Your task to perform on an android device: turn on showing notifications on the lock screen Image 0: 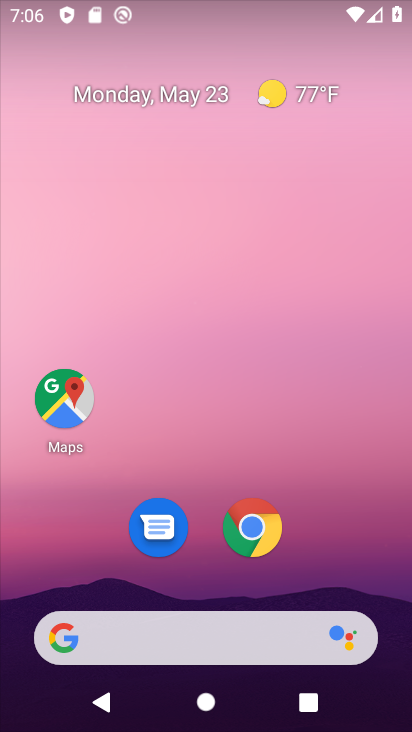
Step 0: drag from (233, 664) to (289, 29)
Your task to perform on an android device: turn on showing notifications on the lock screen Image 1: 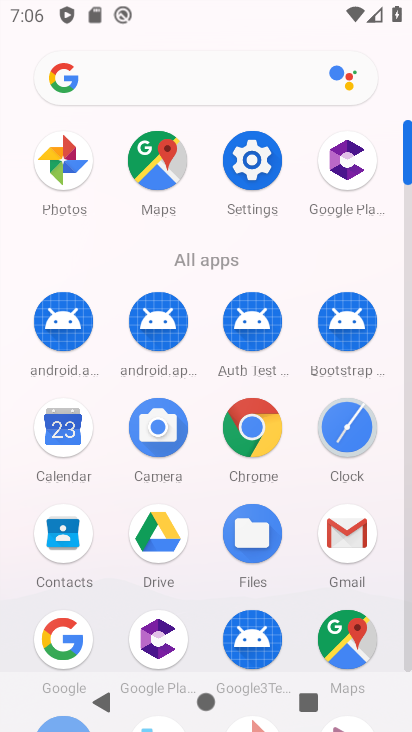
Step 1: click (260, 163)
Your task to perform on an android device: turn on showing notifications on the lock screen Image 2: 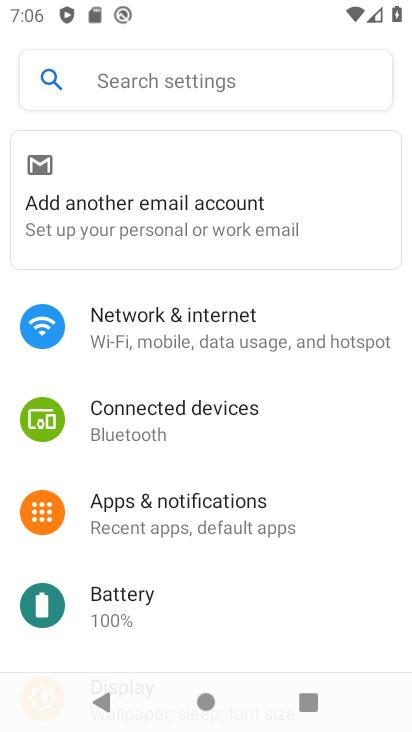
Step 2: click (203, 74)
Your task to perform on an android device: turn on showing notifications on the lock screen Image 3: 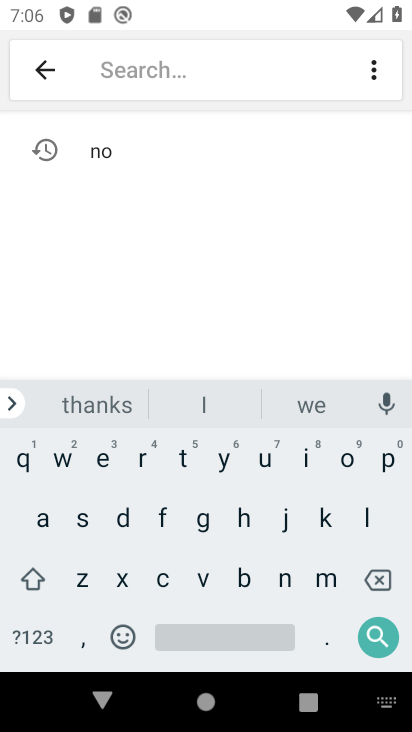
Step 3: click (281, 578)
Your task to perform on an android device: turn on showing notifications on the lock screen Image 4: 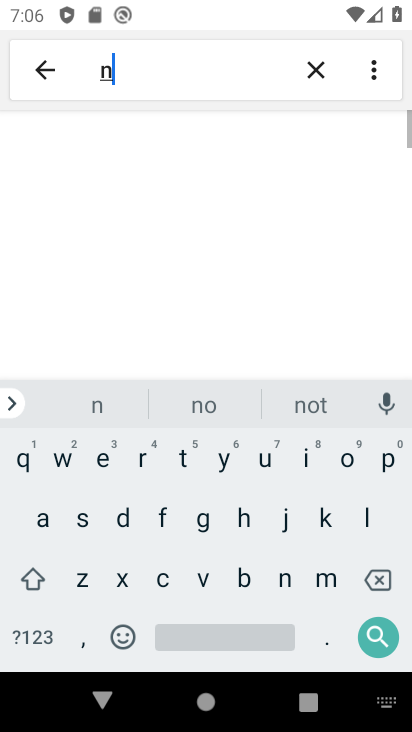
Step 4: click (351, 467)
Your task to perform on an android device: turn on showing notifications on the lock screen Image 5: 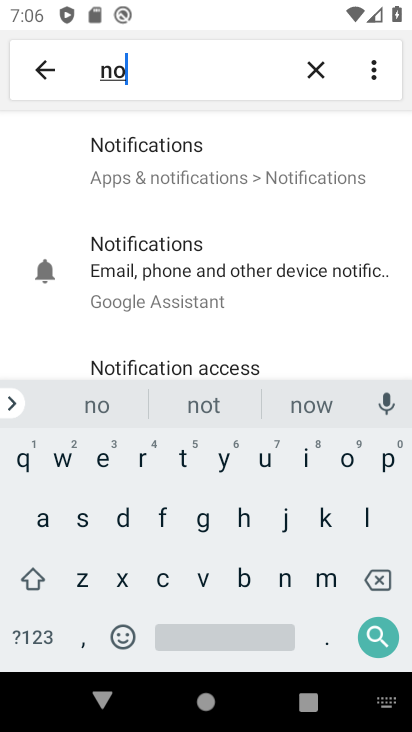
Step 5: click (190, 164)
Your task to perform on an android device: turn on showing notifications on the lock screen Image 6: 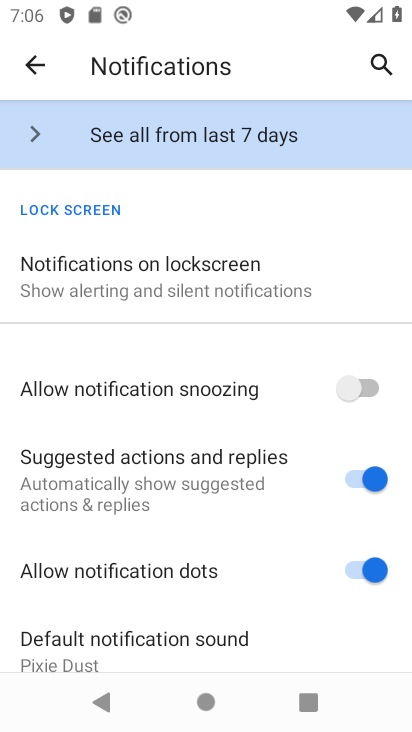
Step 6: click (141, 270)
Your task to perform on an android device: turn on showing notifications on the lock screen Image 7: 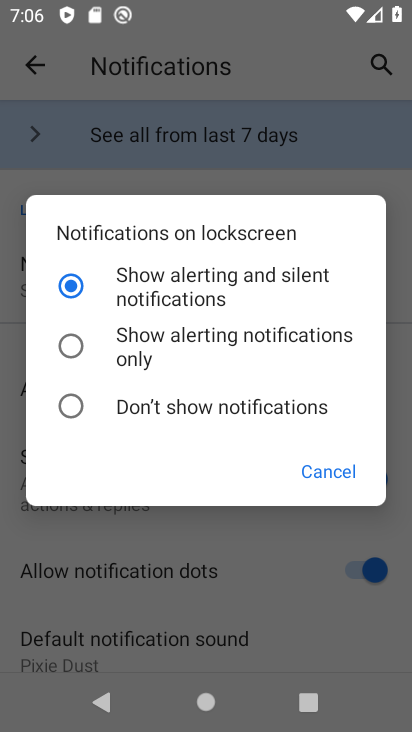
Step 7: task complete